Your task to perform on an android device: Open location settings Image 0: 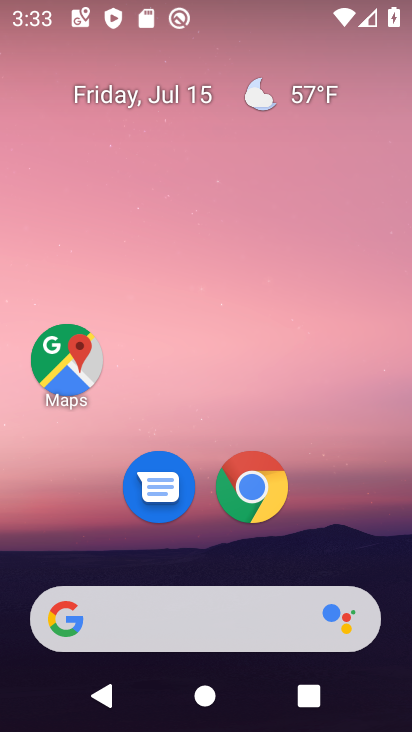
Step 0: drag from (188, 578) to (251, 27)
Your task to perform on an android device: Open location settings Image 1: 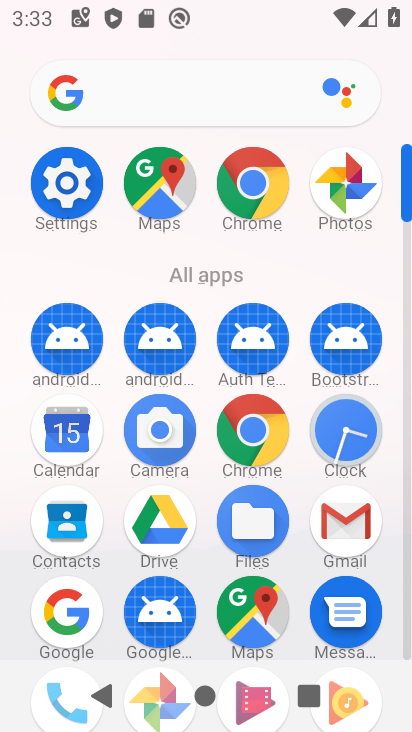
Step 1: drag from (198, 542) to (225, 326)
Your task to perform on an android device: Open location settings Image 2: 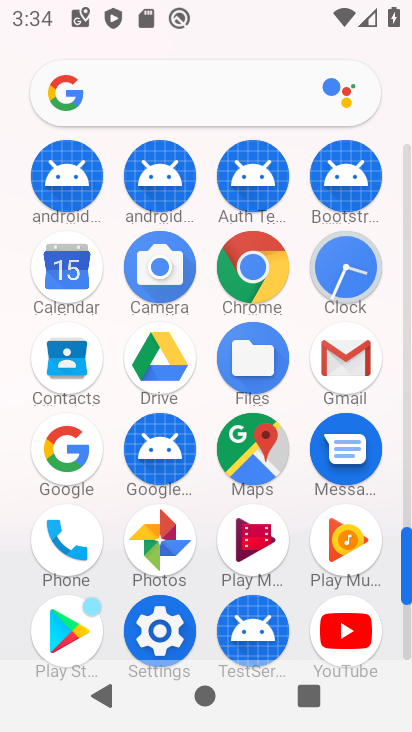
Step 2: click (166, 630)
Your task to perform on an android device: Open location settings Image 3: 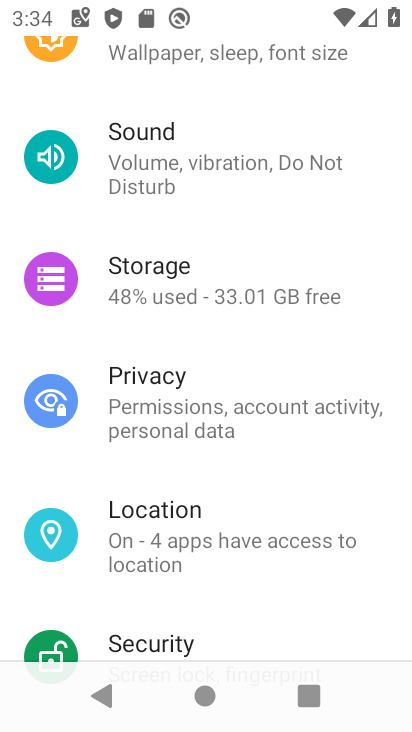
Step 3: click (191, 546)
Your task to perform on an android device: Open location settings Image 4: 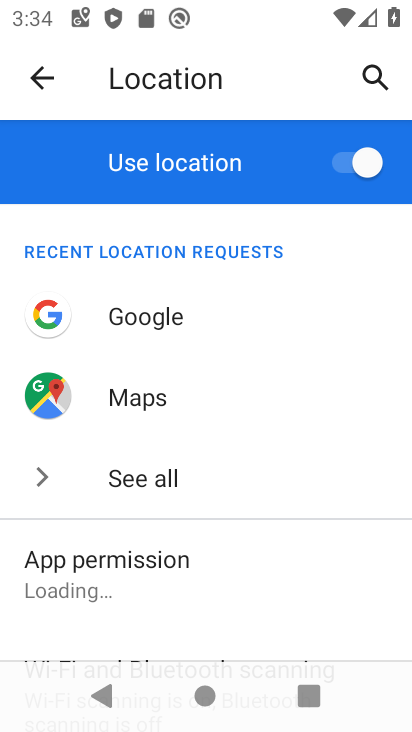
Step 4: task complete